Your task to perform on an android device: turn notification dots on Image 0: 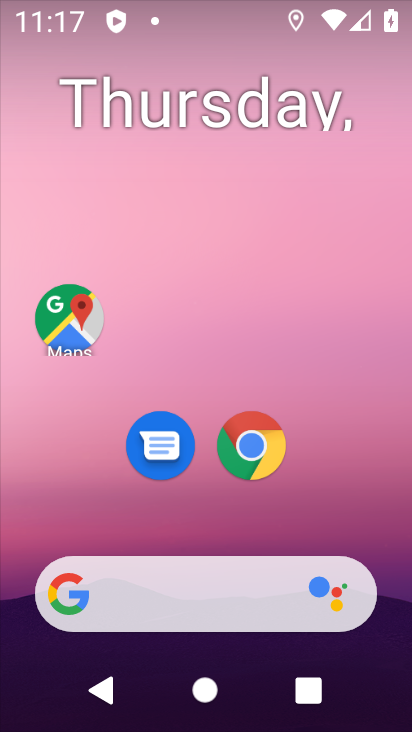
Step 0: drag from (397, 602) to (307, 176)
Your task to perform on an android device: turn notification dots on Image 1: 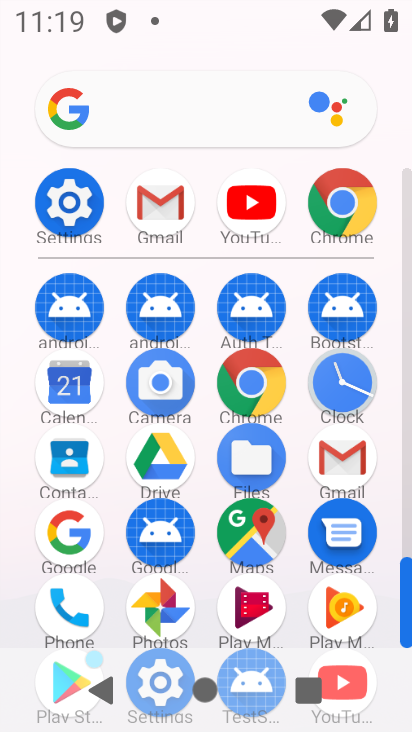
Step 1: drag from (212, 619) to (197, 152)
Your task to perform on an android device: turn notification dots on Image 2: 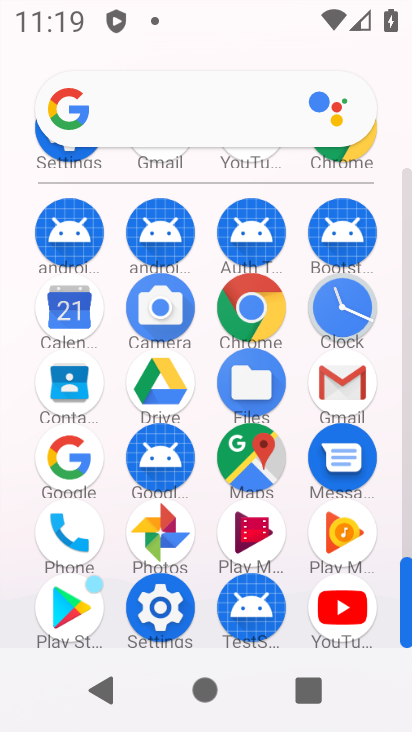
Step 2: click (164, 598)
Your task to perform on an android device: turn notification dots on Image 3: 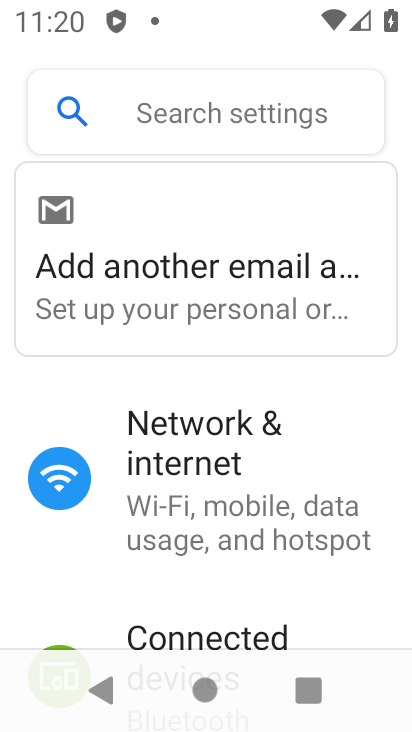
Step 3: drag from (87, 590) to (176, 62)
Your task to perform on an android device: turn notification dots on Image 4: 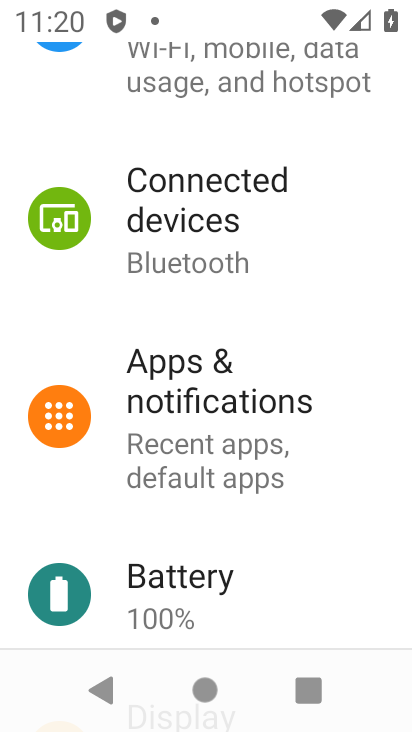
Step 4: click (224, 412)
Your task to perform on an android device: turn notification dots on Image 5: 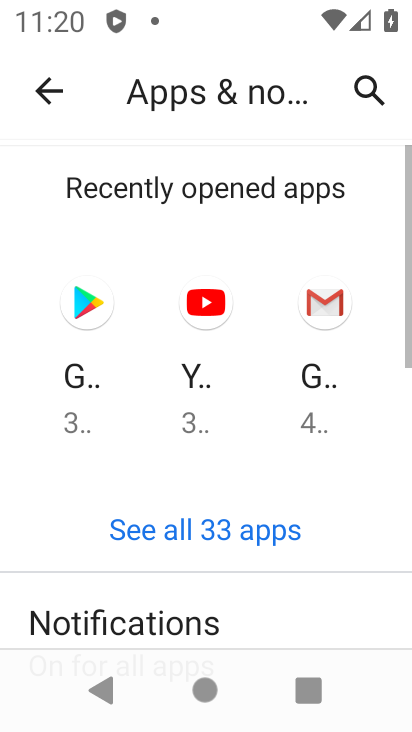
Step 5: click (161, 601)
Your task to perform on an android device: turn notification dots on Image 6: 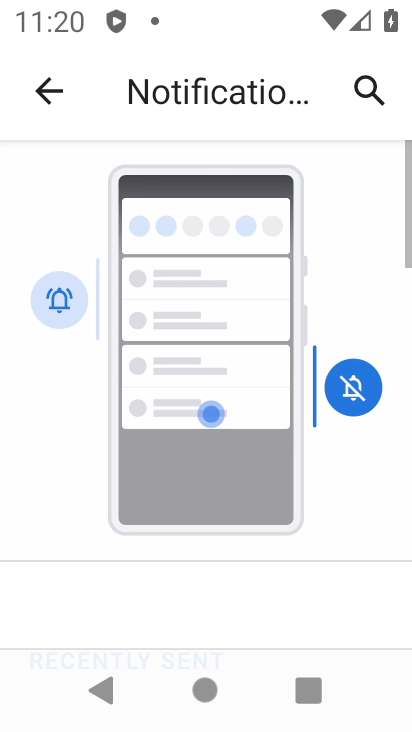
Step 6: drag from (161, 600) to (216, 56)
Your task to perform on an android device: turn notification dots on Image 7: 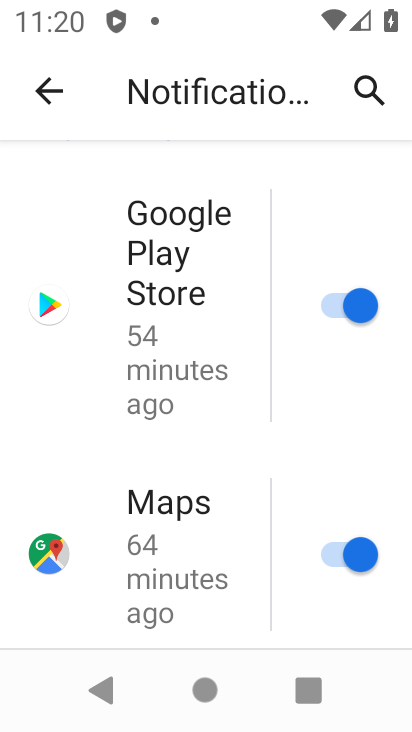
Step 7: drag from (118, 564) to (158, 83)
Your task to perform on an android device: turn notification dots on Image 8: 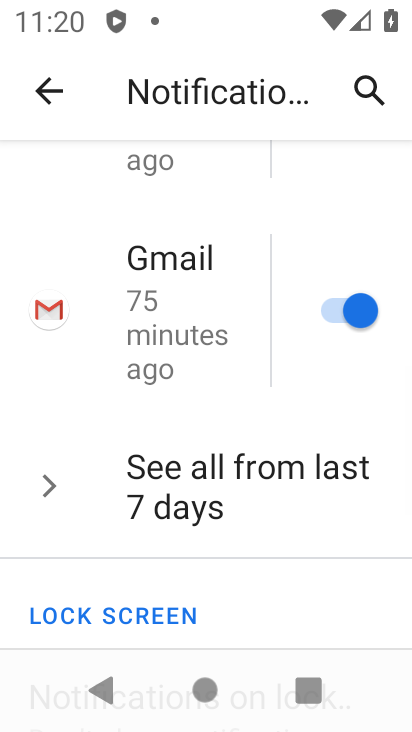
Step 8: drag from (145, 562) to (213, 141)
Your task to perform on an android device: turn notification dots on Image 9: 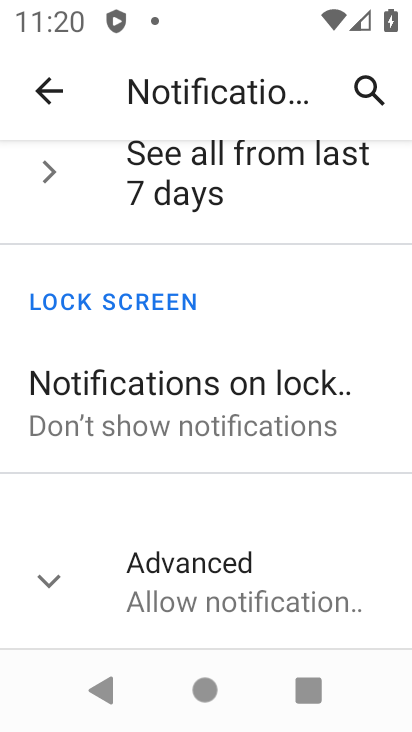
Step 9: click (63, 582)
Your task to perform on an android device: turn notification dots on Image 10: 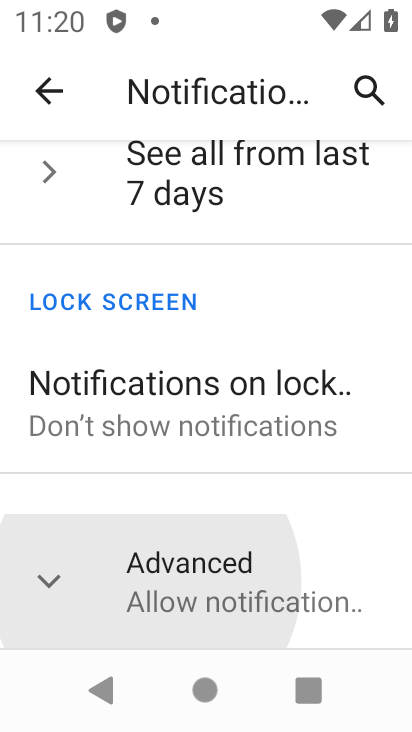
Step 10: task complete